Your task to perform on an android device: visit the assistant section in the google photos Image 0: 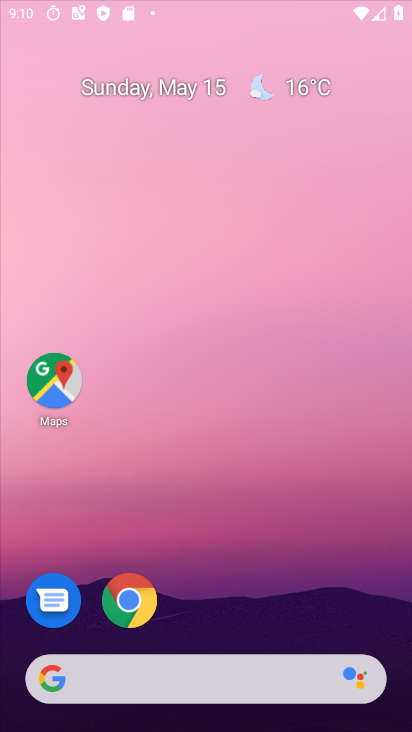
Step 0: click (295, 178)
Your task to perform on an android device: visit the assistant section in the google photos Image 1: 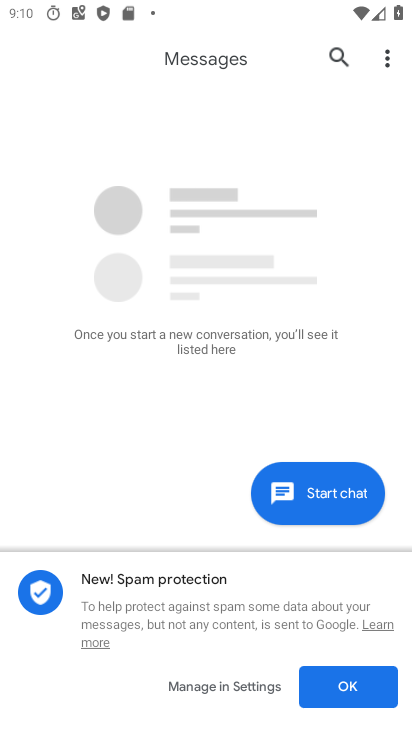
Step 1: press home button
Your task to perform on an android device: visit the assistant section in the google photos Image 2: 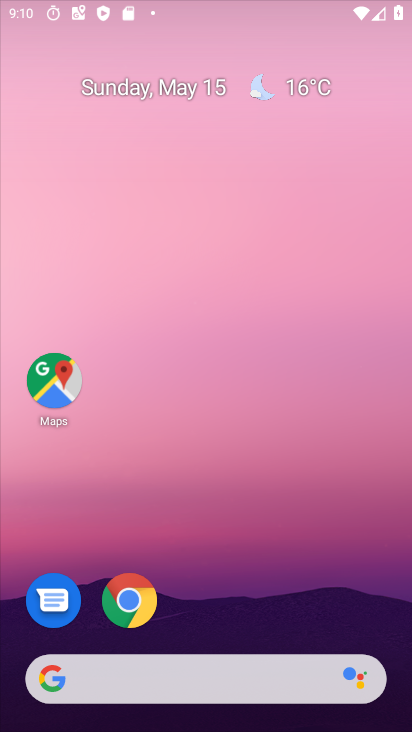
Step 2: drag from (256, 586) to (250, 67)
Your task to perform on an android device: visit the assistant section in the google photos Image 3: 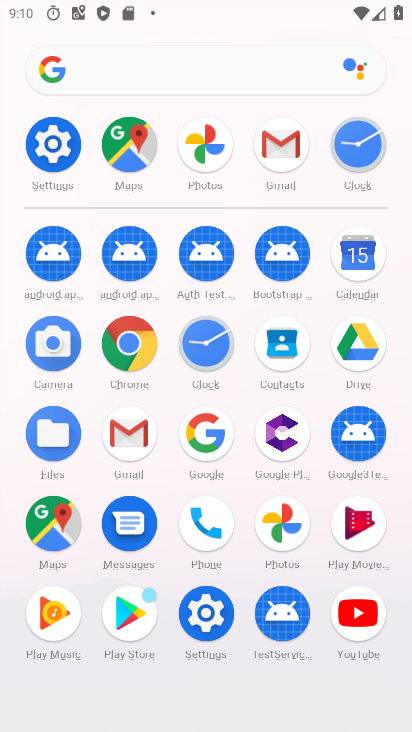
Step 3: click (280, 518)
Your task to perform on an android device: visit the assistant section in the google photos Image 4: 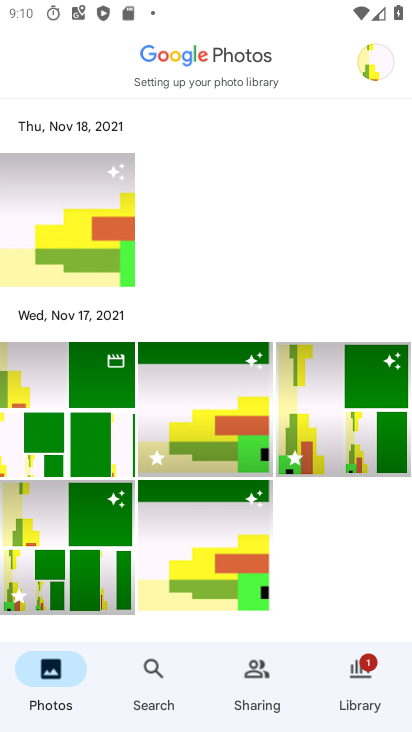
Step 4: click (361, 684)
Your task to perform on an android device: visit the assistant section in the google photos Image 5: 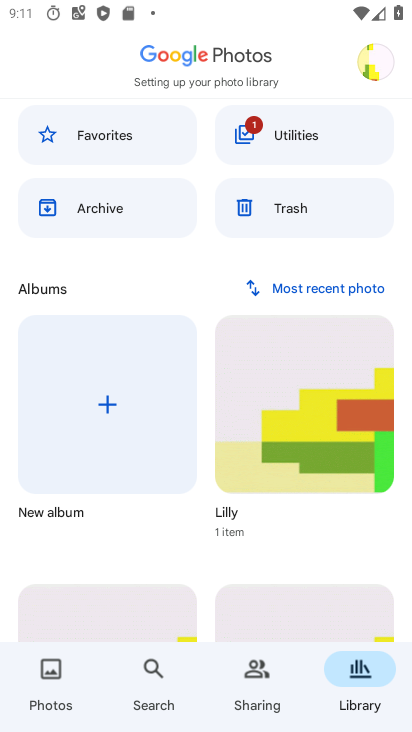
Step 5: click (265, 678)
Your task to perform on an android device: visit the assistant section in the google photos Image 6: 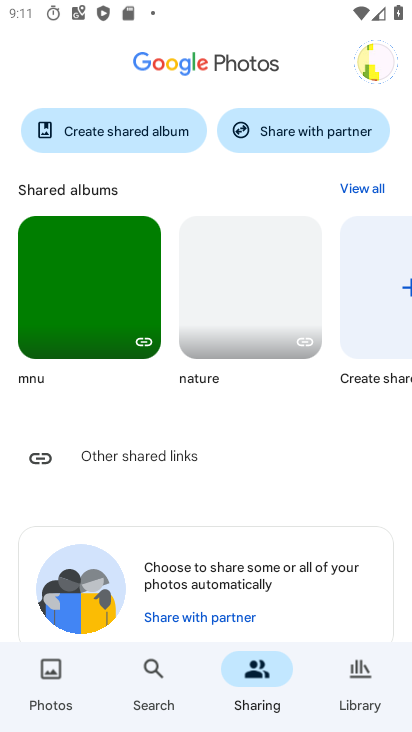
Step 6: task complete